Your task to perform on an android device: Toggle the flashlight Image 0: 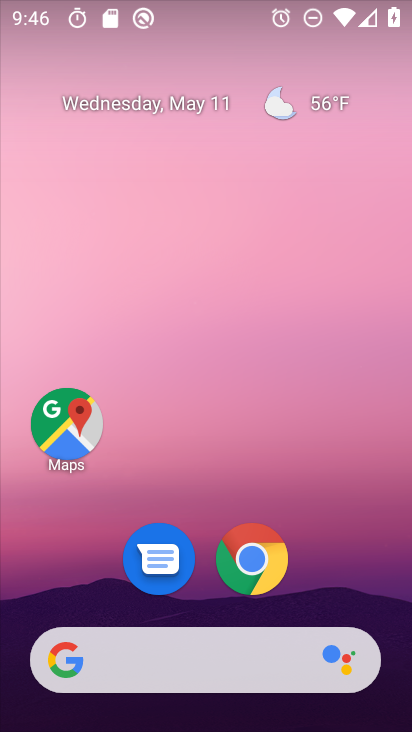
Step 0: task impossible